Your task to perform on an android device: Show me popular videos on Youtube Image 0: 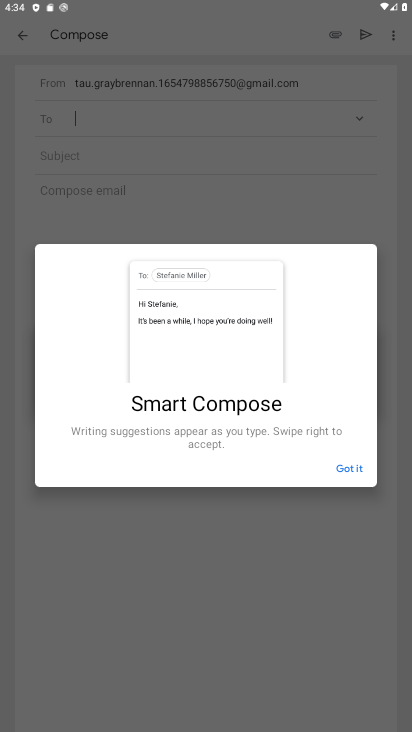
Step 0: press home button
Your task to perform on an android device: Show me popular videos on Youtube Image 1: 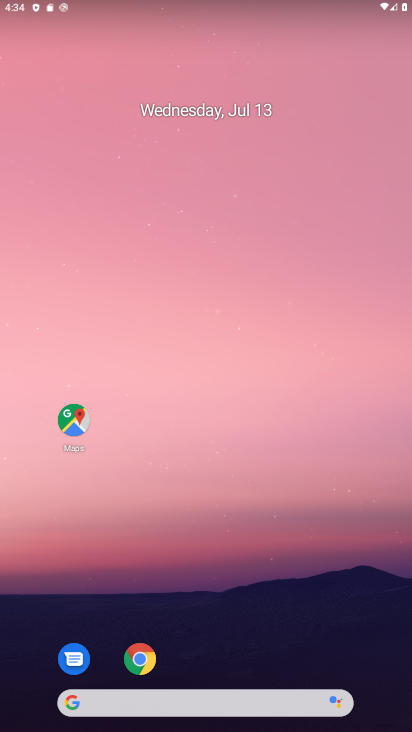
Step 1: drag from (266, 664) to (270, 220)
Your task to perform on an android device: Show me popular videos on Youtube Image 2: 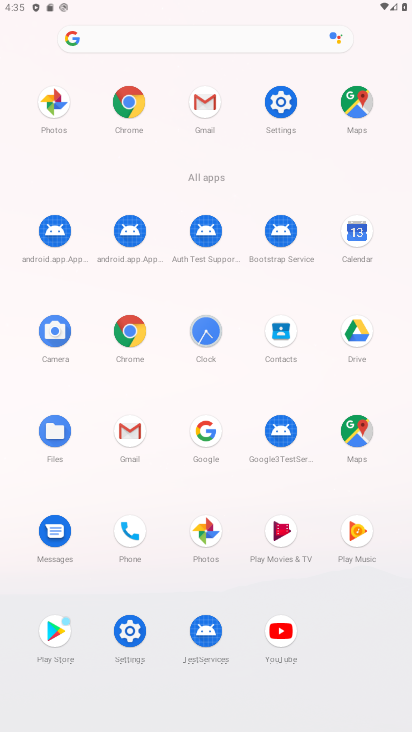
Step 2: click (285, 639)
Your task to perform on an android device: Show me popular videos on Youtube Image 3: 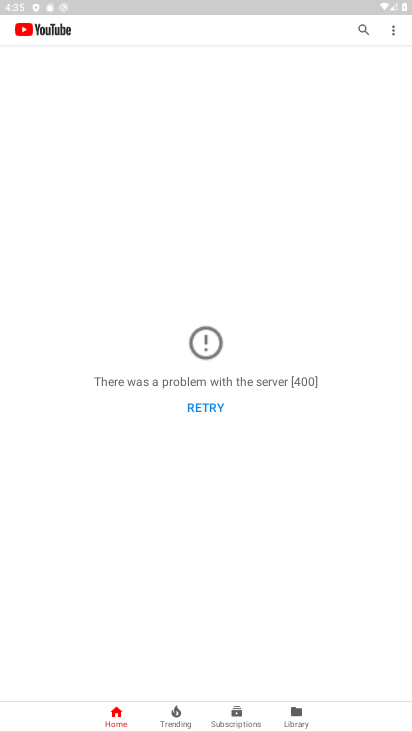
Step 3: click (195, 412)
Your task to perform on an android device: Show me popular videos on Youtube Image 4: 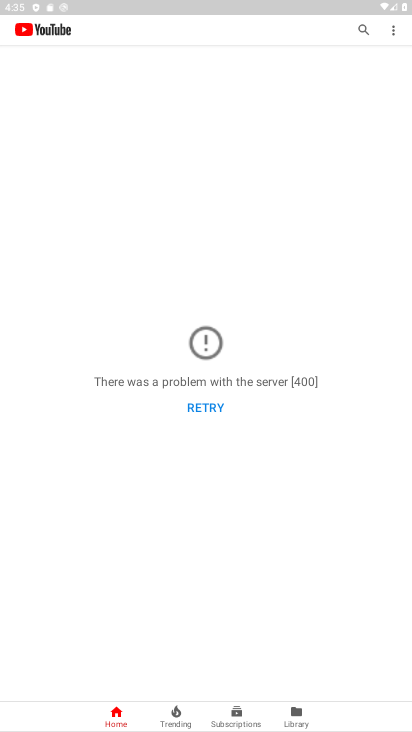
Step 4: task complete